Your task to perform on an android device: Open calendar and show me the first week of next month Image 0: 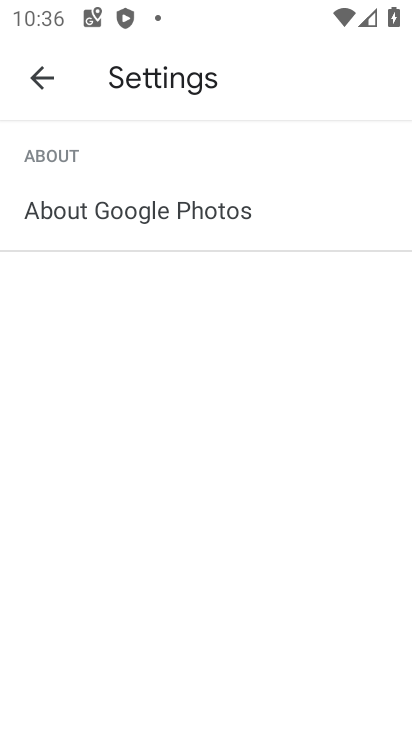
Step 0: click (33, 70)
Your task to perform on an android device: Open calendar and show me the first week of next month Image 1: 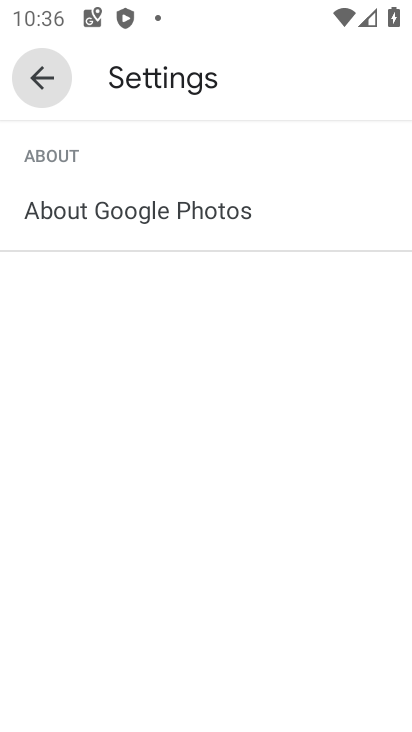
Step 1: click (35, 71)
Your task to perform on an android device: Open calendar and show me the first week of next month Image 2: 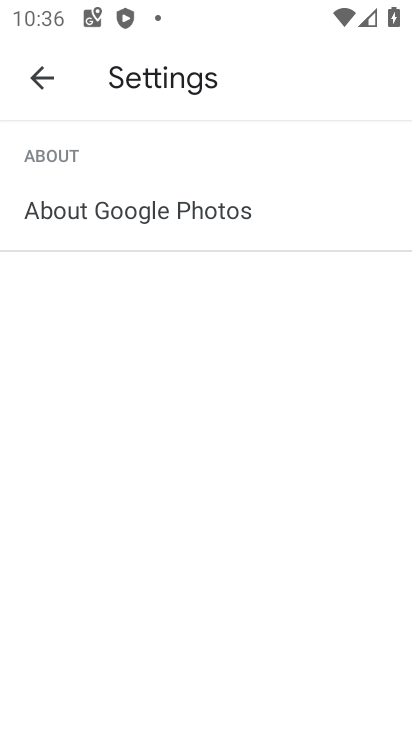
Step 2: click (35, 71)
Your task to perform on an android device: Open calendar and show me the first week of next month Image 3: 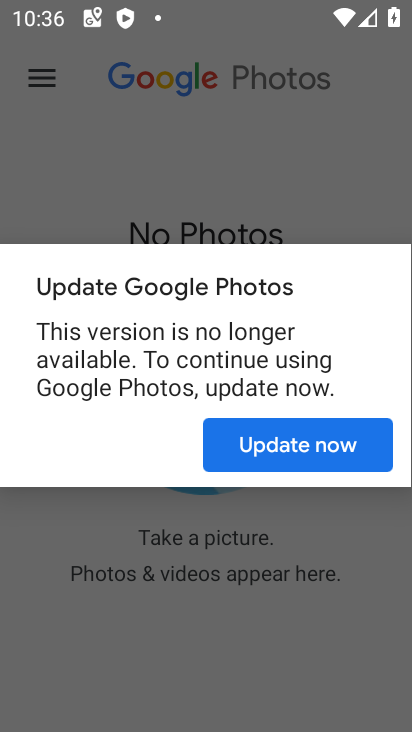
Step 3: click (289, 440)
Your task to perform on an android device: Open calendar and show me the first week of next month Image 4: 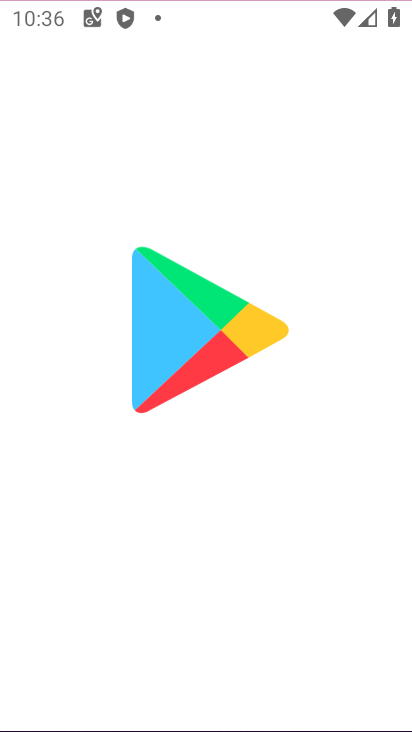
Step 4: press back button
Your task to perform on an android device: Open calendar and show me the first week of next month Image 5: 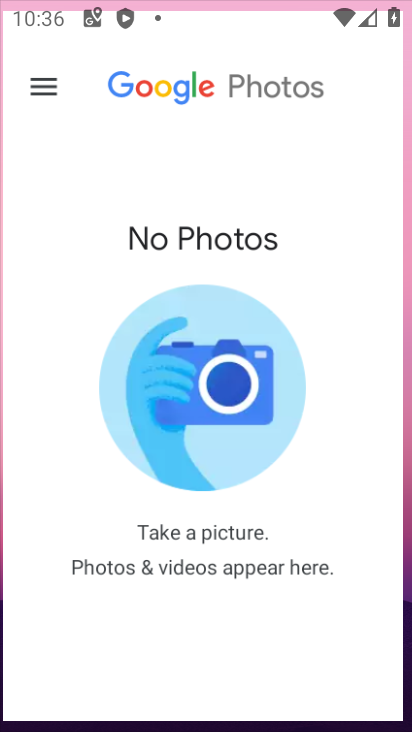
Step 5: press home button
Your task to perform on an android device: Open calendar and show me the first week of next month Image 6: 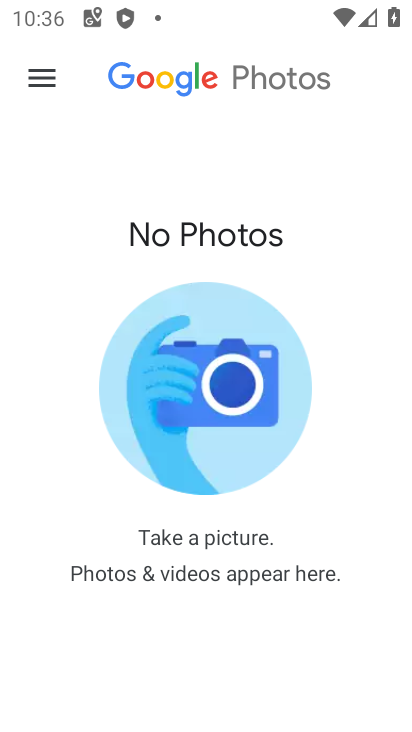
Step 6: press home button
Your task to perform on an android device: Open calendar and show me the first week of next month Image 7: 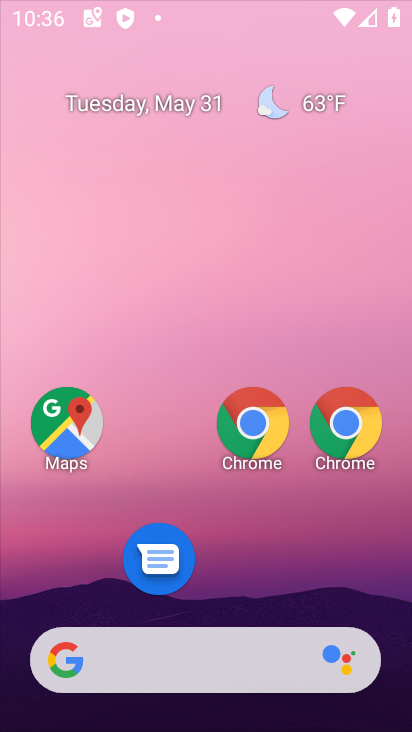
Step 7: press home button
Your task to perform on an android device: Open calendar and show me the first week of next month Image 8: 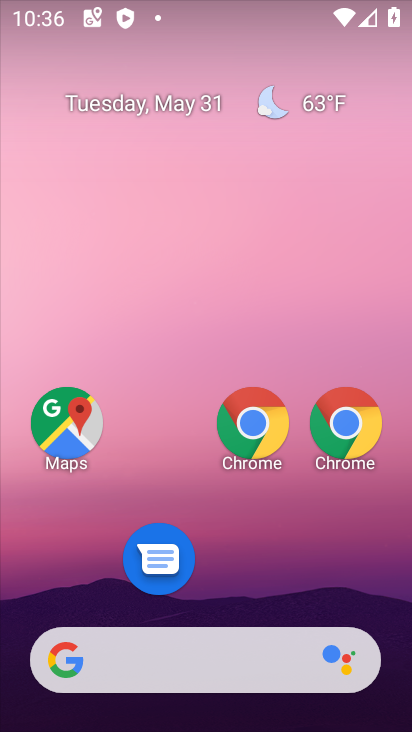
Step 8: drag from (307, 707) to (228, 97)
Your task to perform on an android device: Open calendar and show me the first week of next month Image 9: 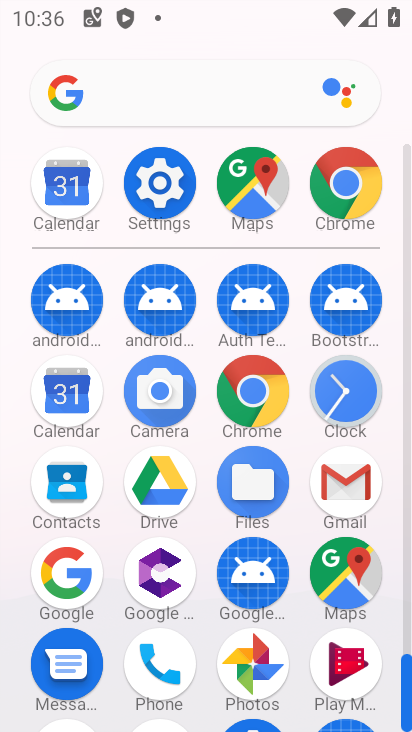
Step 9: click (62, 394)
Your task to perform on an android device: Open calendar and show me the first week of next month Image 10: 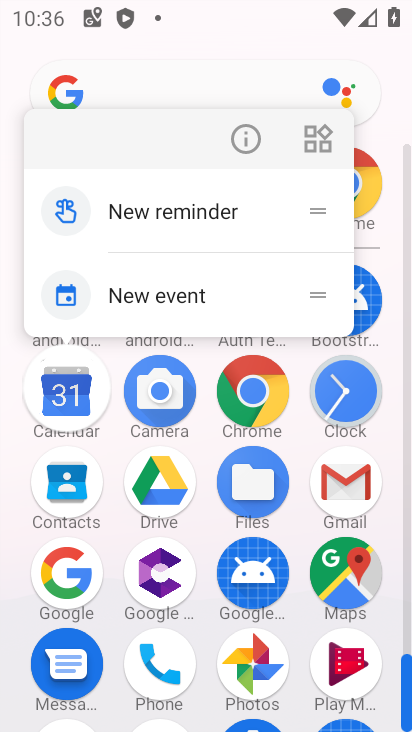
Step 10: click (63, 391)
Your task to perform on an android device: Open calendar and show me the first week of next month Image 11: 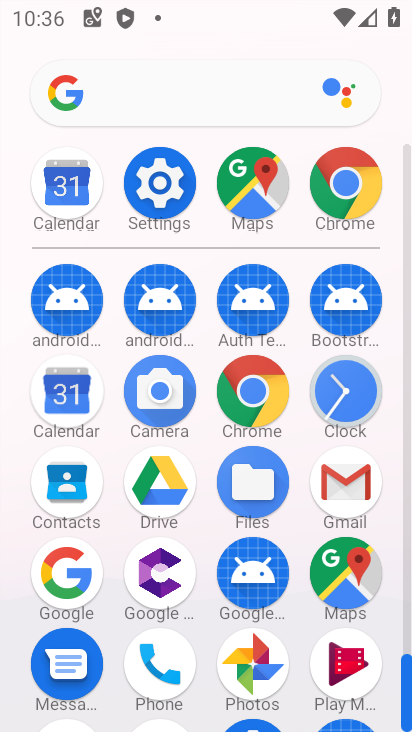
Step 11: click (64, 390)
Your task to perform on an android device: Open calendar and show me the first week of next month Image 12: 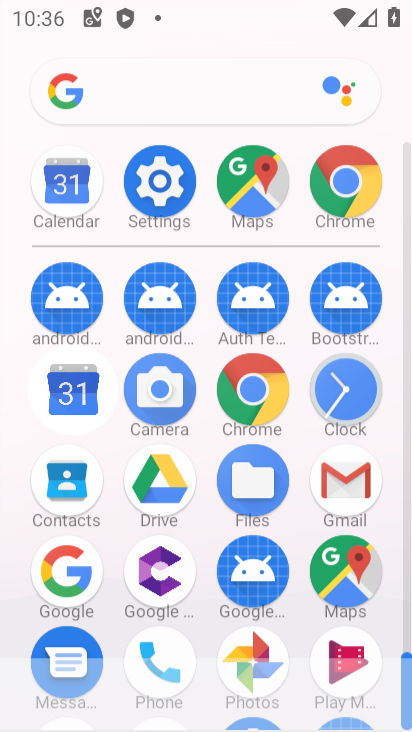
Step 12: click (64, 390)
Your task to perform on an android device: Open calendar and show me the first week of next month Image 13: 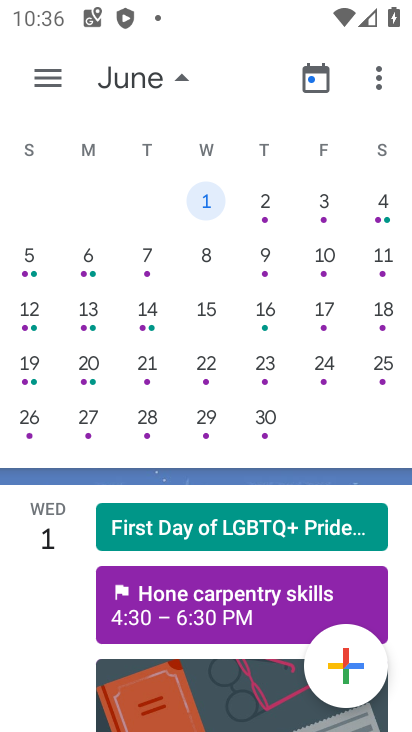
Step 13: click (64, 390)
Your task to perform on an android device: Open calendar and show me the first week of next month Image 14: 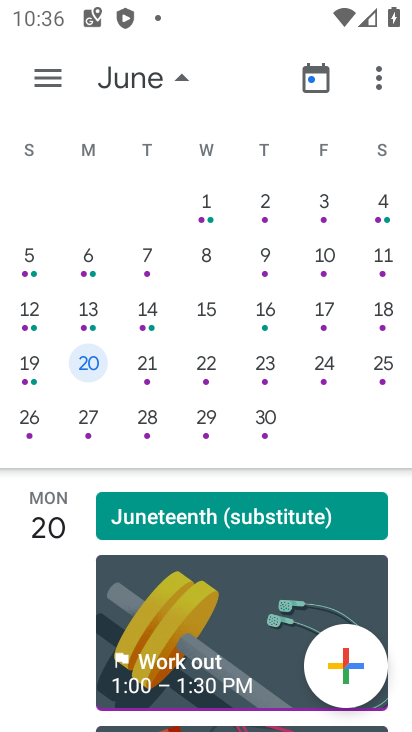
Step 14: click (200, 202)
Your task to perform on an android device: Open calendar and show me the first week of next month Image 15: 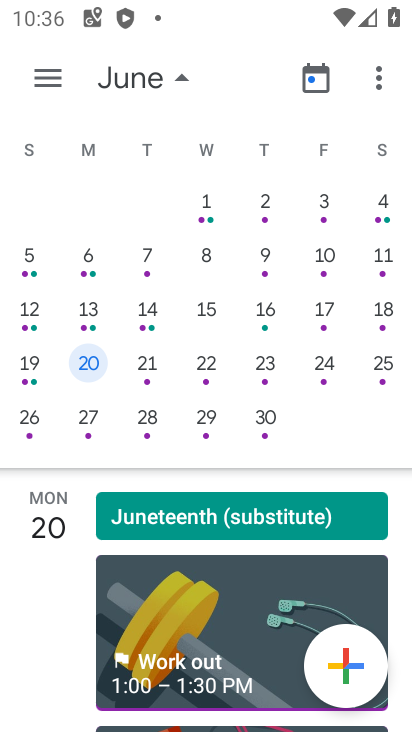
Step 15: click (201, 201)
Your task to perform on an android device: Open calendar and show me the first week of next month Image 16: 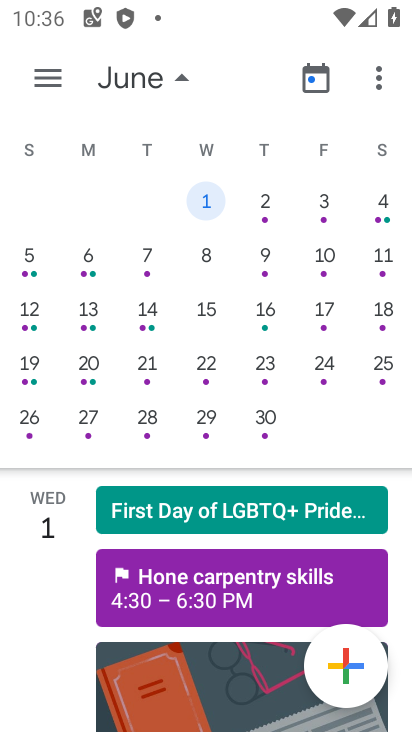
Step 16: click (203, 200)
Your task to perform on an android device: Open calendar and show me the first week of next month Image 17: 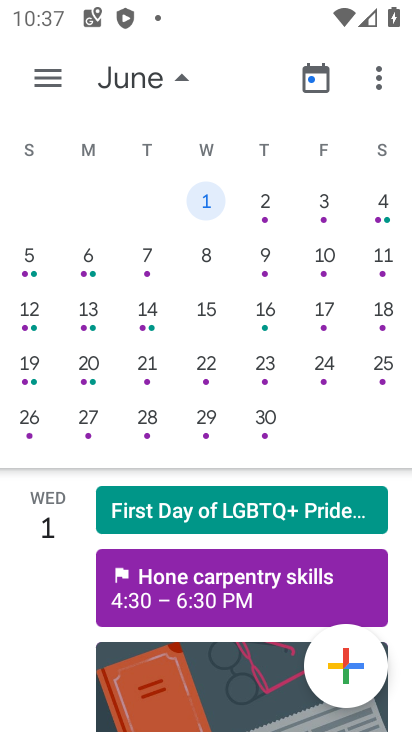
Step 17: task complete